Your task to perform on an android device: move an email to a new category in the gmail app Image 0: 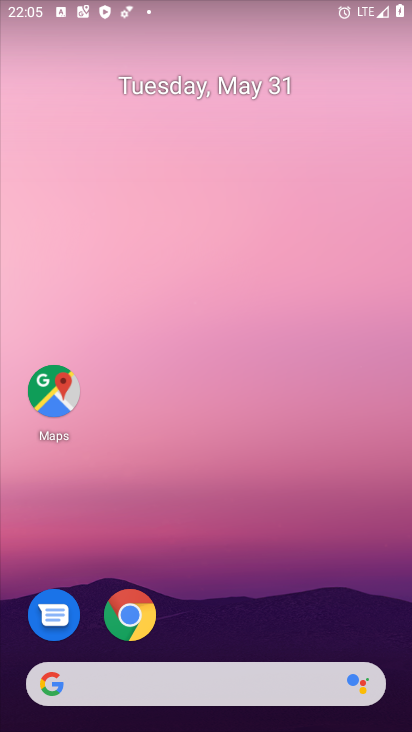
Step 0: drag from (392, 640) to (310, 20)
Your task to perform on an android device: move an email to a new category in the gmail app Image 1: 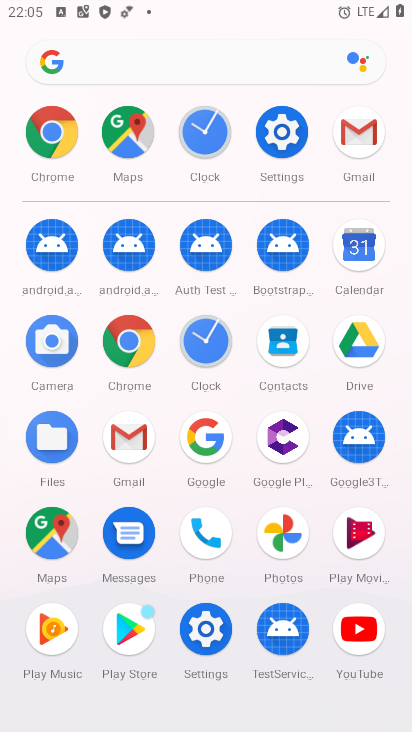
Step 1: click (125, 435)
Your task to perform on an android device: move an email to a new category in the gmail app Image 2: 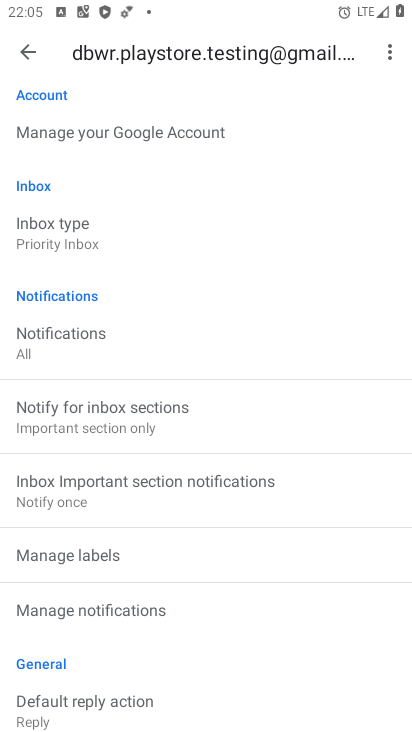
Step 2: press back button
Your task to perform on an android device: move an email to a new category in the gmail app Image 3: 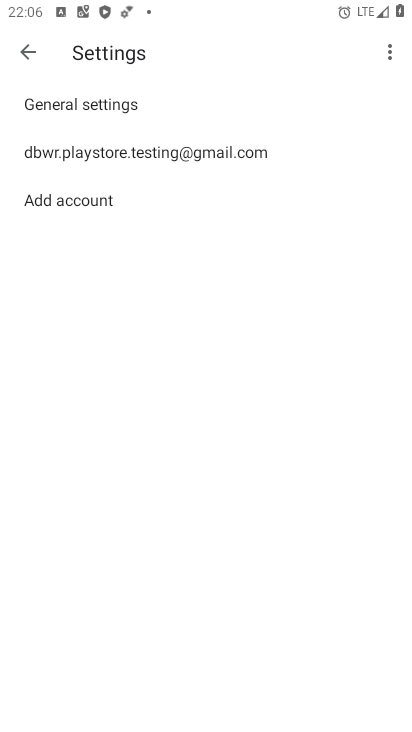
Step 3: press back button
Your task to perform on an android device: move an email to a new category in the gmail app Image 4: 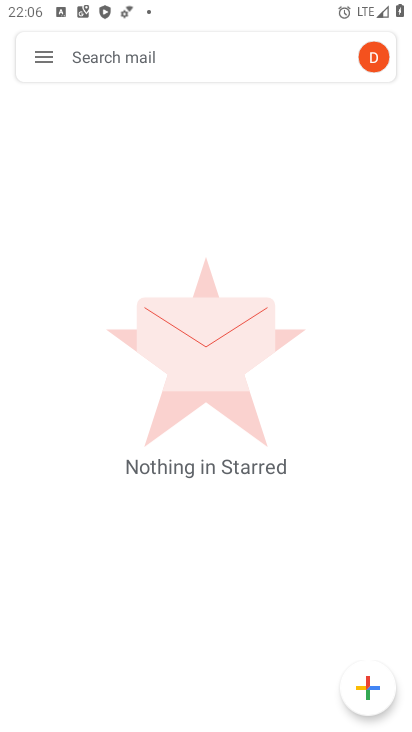
Step 4: click (39, 51)
Your task to perform on an android device: move an email to a new category in the gmail app Image 5: 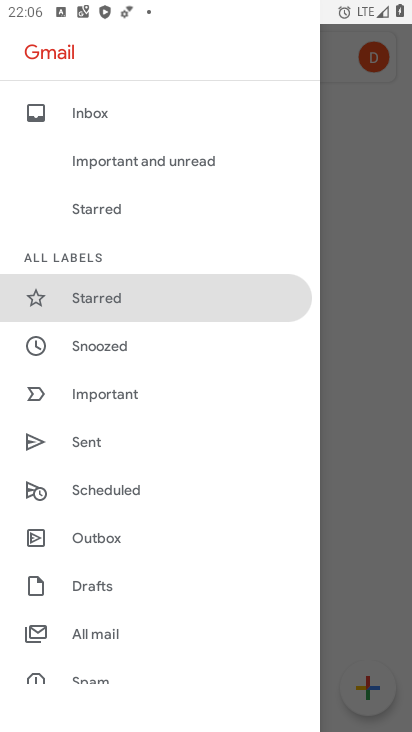
Step 5: drag from (175, 633) to (182, 311)
Your task to perform on an android device: move an email to a new category in the gmail app Image 6: 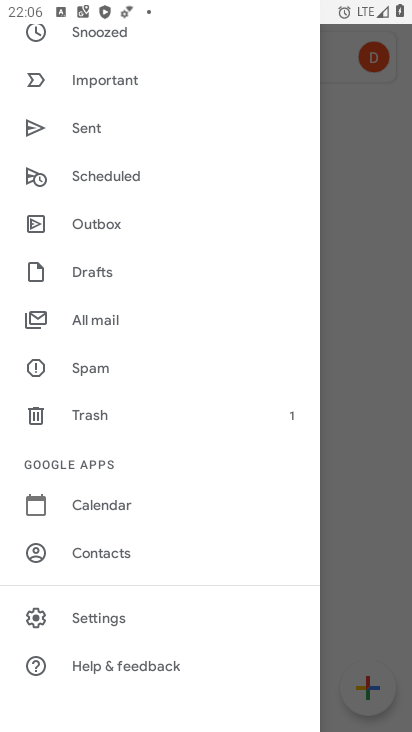
Step 6: click (87, 321)
Your task to perform on an android device: move an email to a new category in the gmail app Image 7: 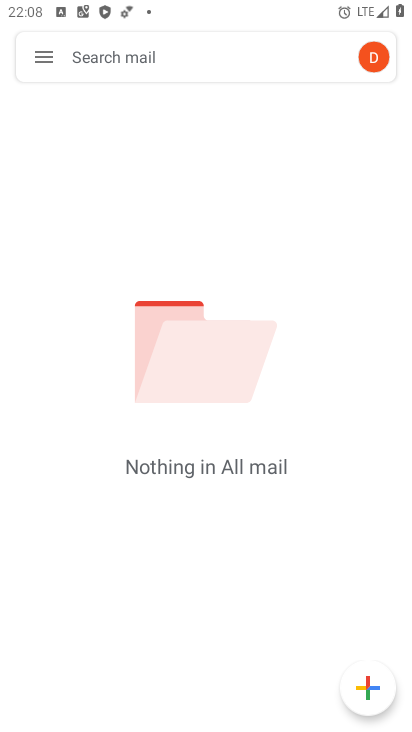
Step 7: task complete